Your task to perform on an android device: toggle wifi Image 0: 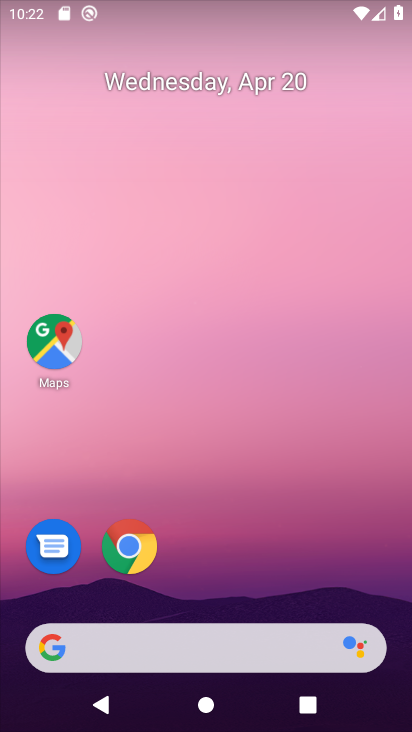
Step 0: drag from (227, 584) to (152, 141)
Your task to perform on an android device: toggle wifi Image 1: 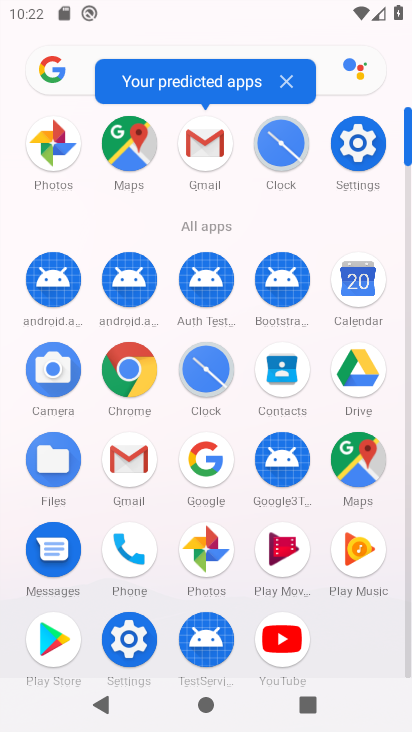
Step 1: click (356, 160)
Your task to perform on an android device: toggle wifi Image 2: 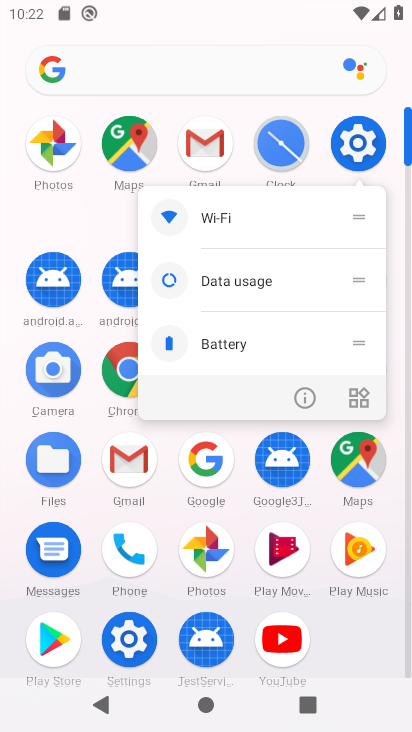
Step 2: click (186, 213)
Your task to perform on an android device: toggle wifi Image 3: 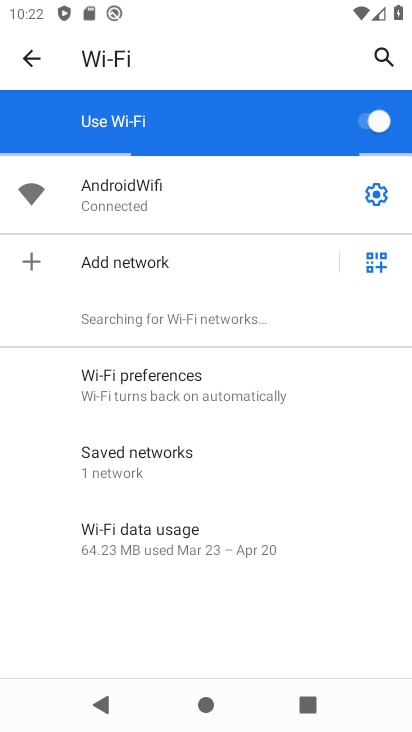
Step 3: click (377, 127)
Your task to perform on an android device: toggle wifi Image 4: 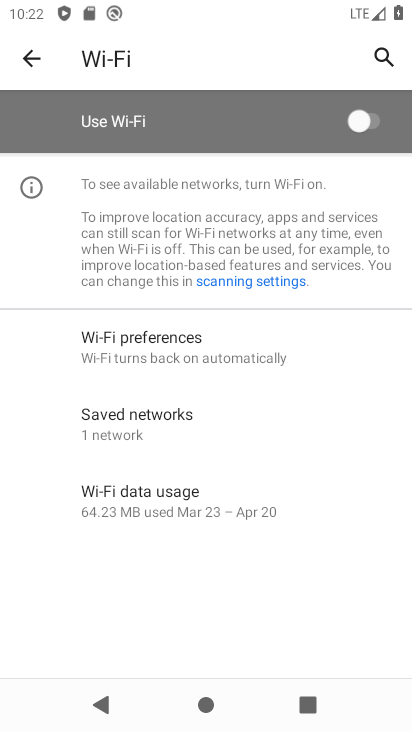
Step 4: task complete